Your task to perform on an android device: Open settings on Google Maps Image 0: 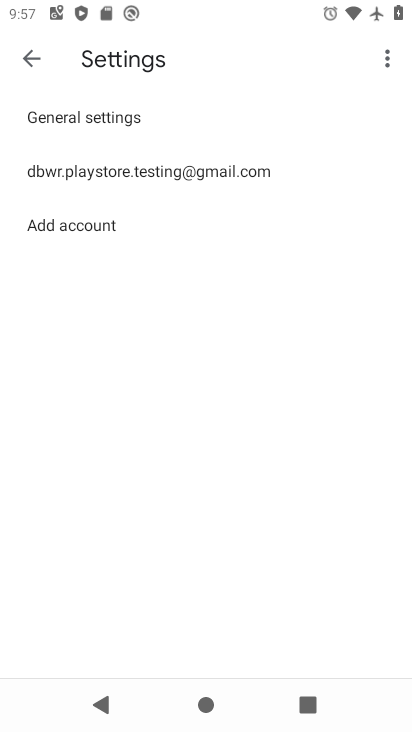
Step 0: press home button
Your task to perform on an android device: Open settings on Google Maps Image 1: 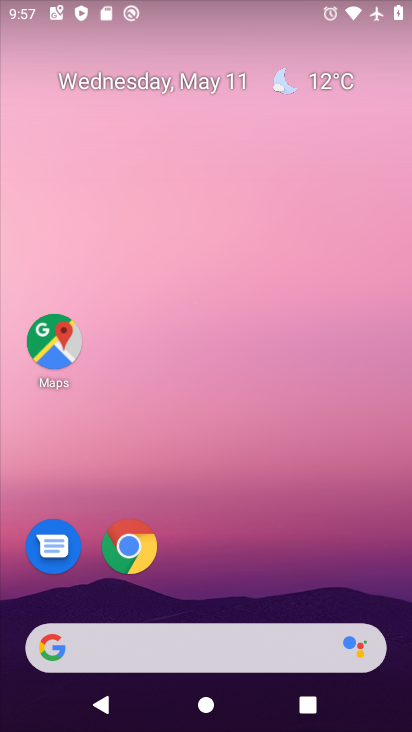
Step 1: click (53, 343)
Your task to perform on an android device: Open settings on Google Maps Image 2: 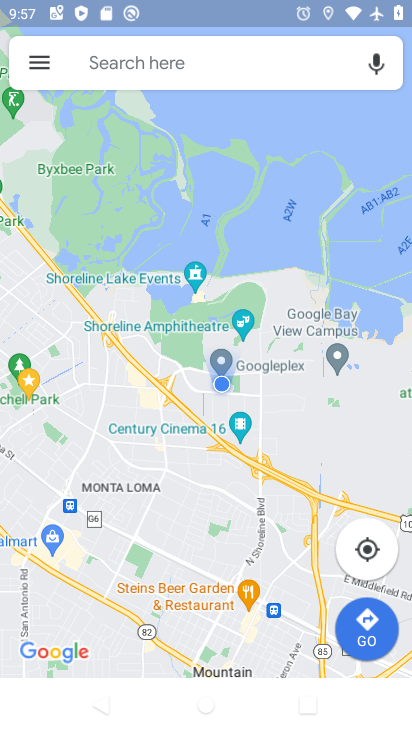
Step 2: click (39, 55)
Your task to perform on an android device: Open settings on Google Maps Image 3: 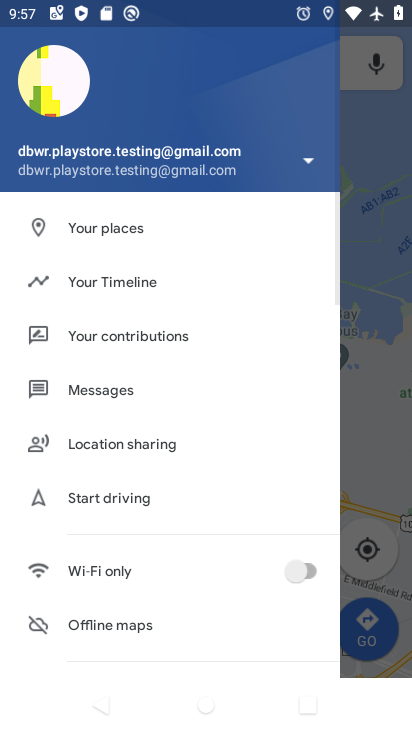
Step 3: drag from (180, 579) to (227, 132)
Your task to perform on an android device: Open settings on Google Maps Image 4: 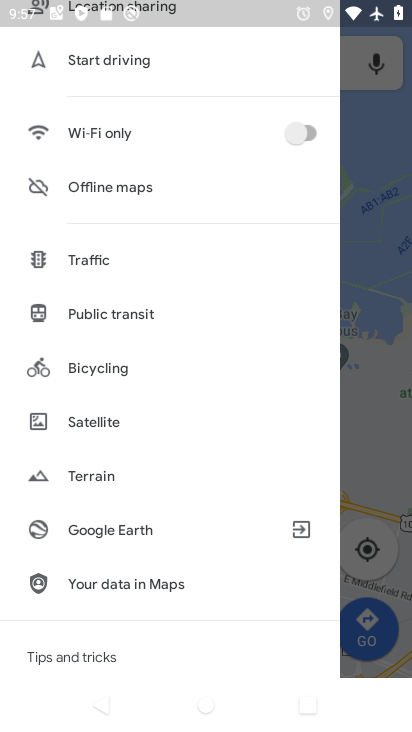
Step 4: drag from (204, 613) to (195, 102)
Your task to perform on an android device: Open settings on Google Maps Image 5: 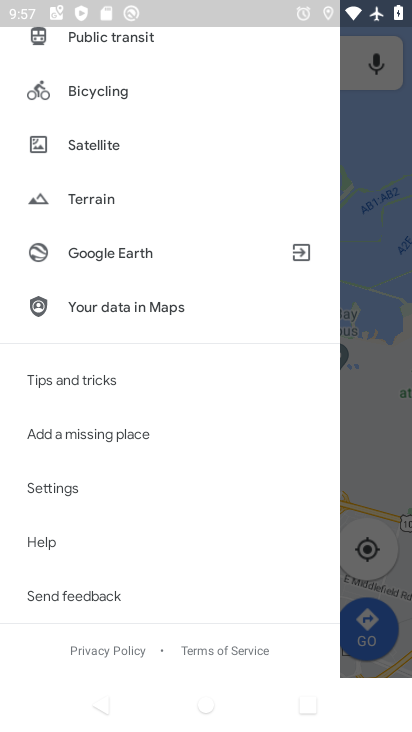
Step 5: click (53, 484)
Your task to perform on an android device: Open settings on Google Maps Image 6: 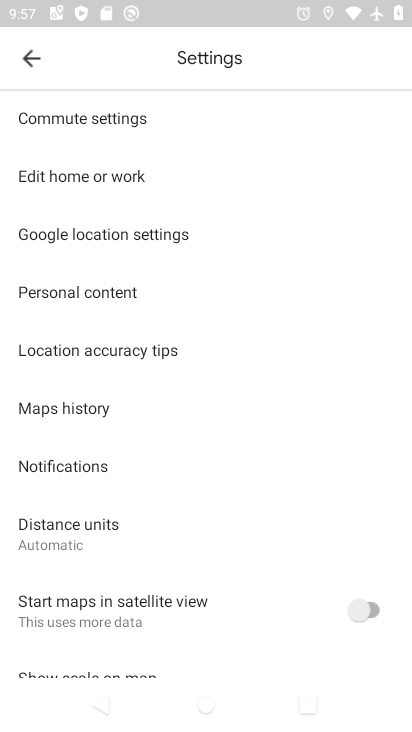
Step 6: task complete